Your task to perform on an android device: turn off improve location accuracy Image 0: 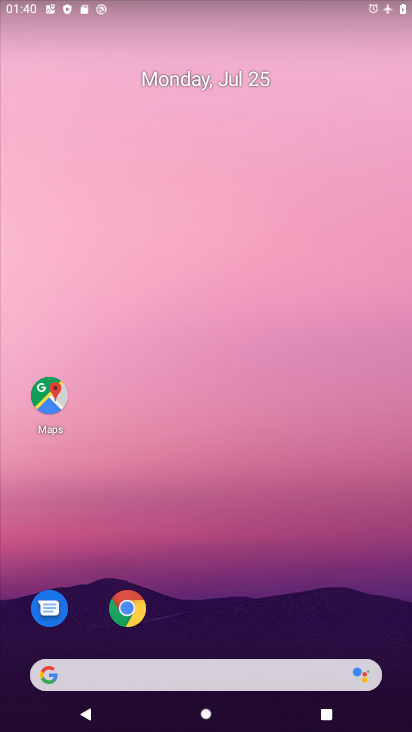
Step 0: drag from (246, 652) to (164, 1)
Your task to perform on an android device: turn off improve location accuracy Image 1: 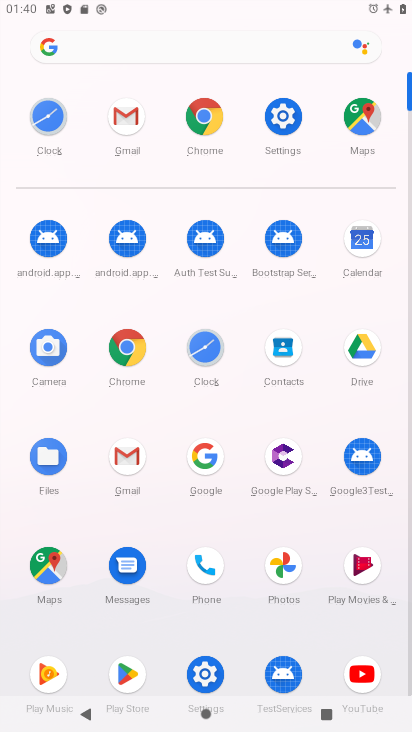
Step 1: click (213, 658)
Your task to perform on an android device: turn off improve location accuracy Image 2: 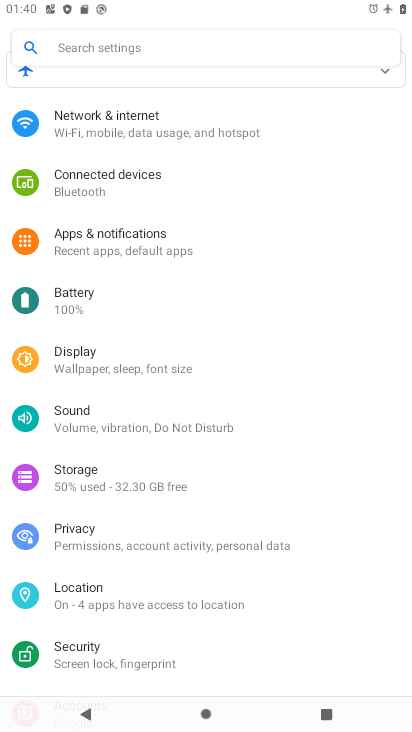
Step 2: click (77, 591)
Your task to perform on an android device: turn off improve location accuracy Image 3: 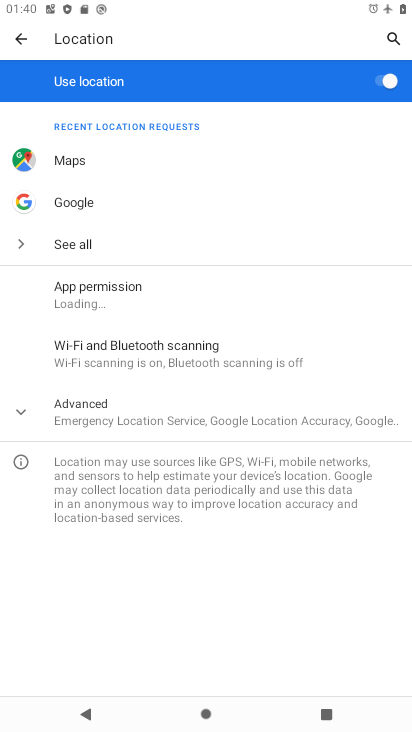
Step 3: click (82, 412)
Your task to perform on an android device: turn off improve location accuracy Image 4: 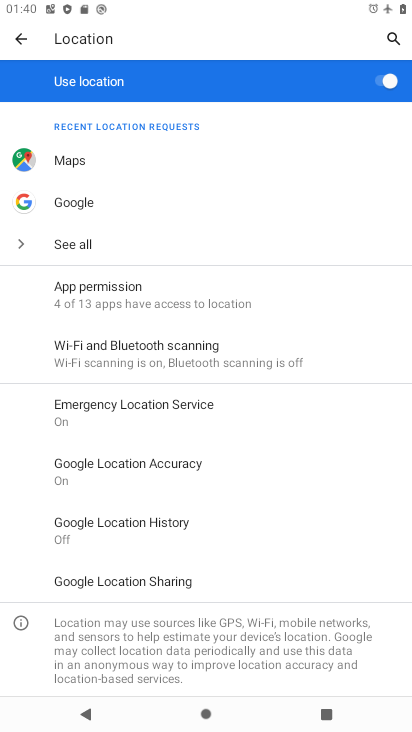
Step 4: click (126, 471)
Your task to perform on an android device: turn off improve location accuracy Image 5: 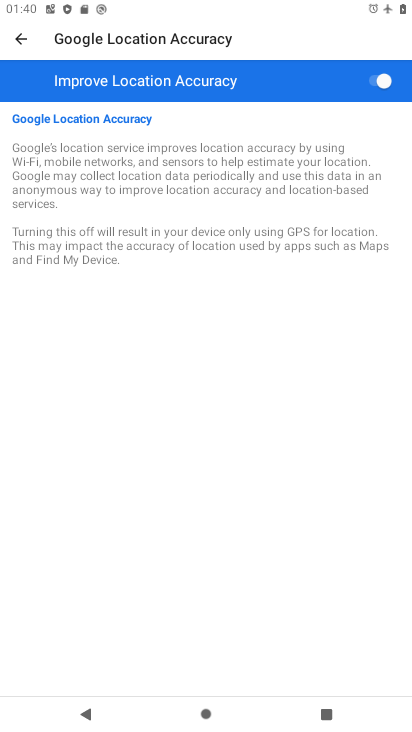
Step 5: click (366, 63)
Your task to perform on an android device: turn off improve location accuracy Image 6: 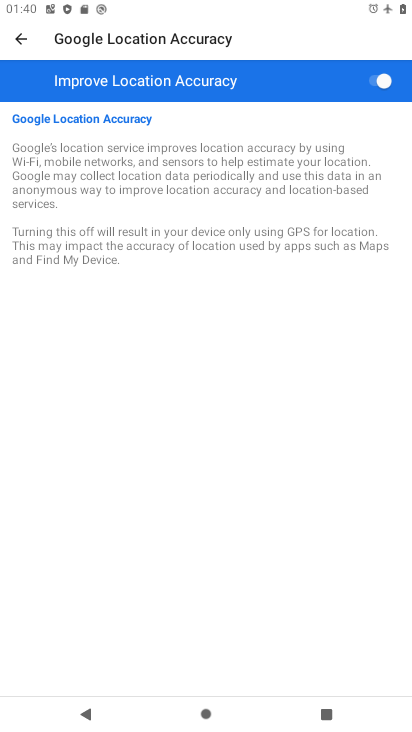
Step 6: task complete